Your task to perform on an android device: move a message to another label in the gmail app Image 0: 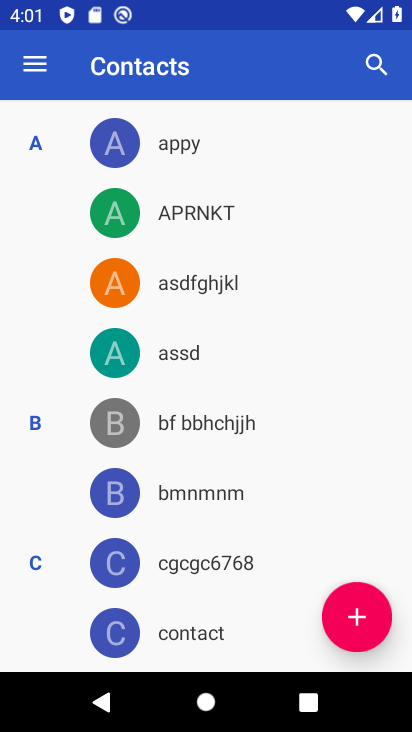
Step 0: press home button
Your task to perform on an android device: move a message to another label in the gmail app Image 1: 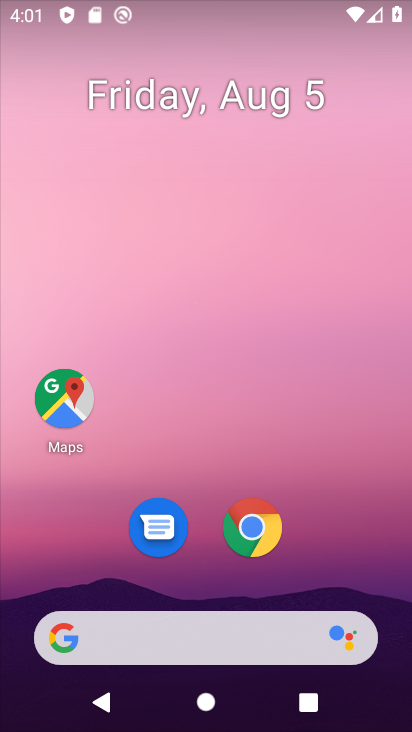
Step 1: drag from (205, 579) to (222, 35)
Your task to perform on an android device: move a message to another label in the gmail app Image 2: 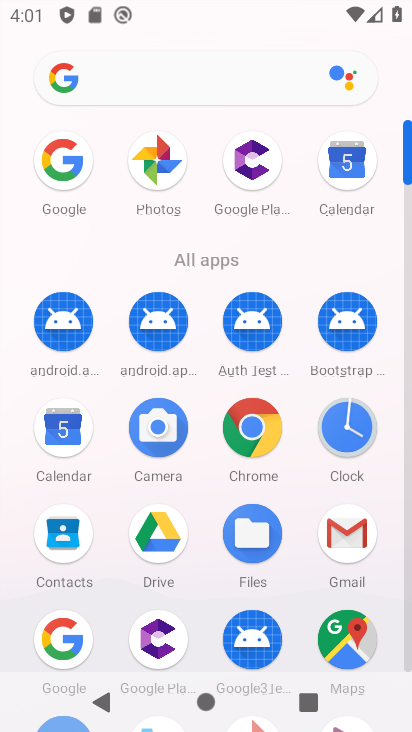
Step 2: click (342, 522)
Your task to perform on an android device: move a message to another label in the gmail app Image 3: 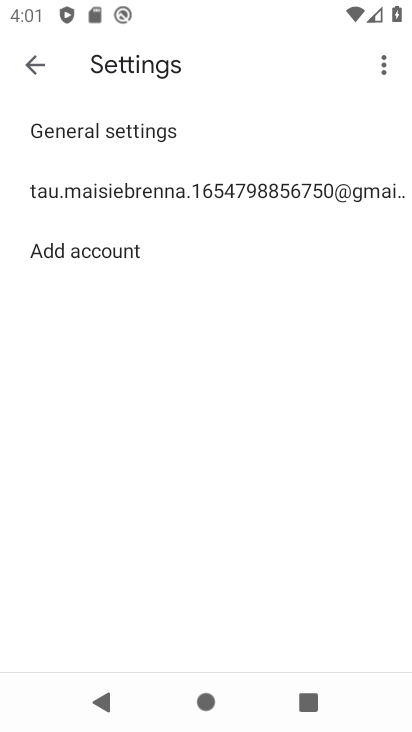
Step 3: click (28, 68)
Your task to perform on an android device: move a message to another label in the gmail app Image 4: 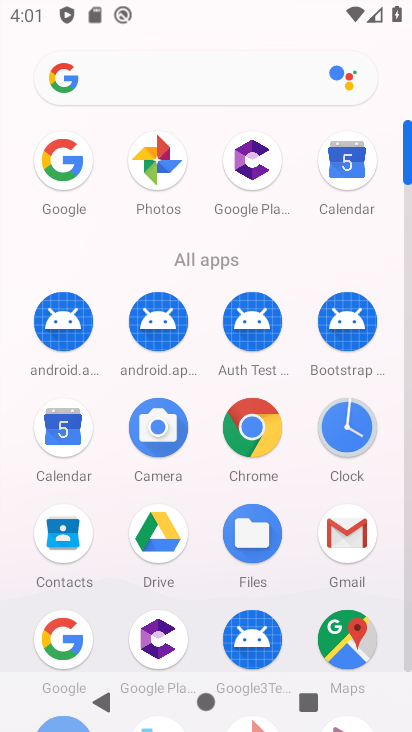
Step 4: click (343, 523)
Your task to perform on an android device: move a message to another label in the gmail app Image 5: 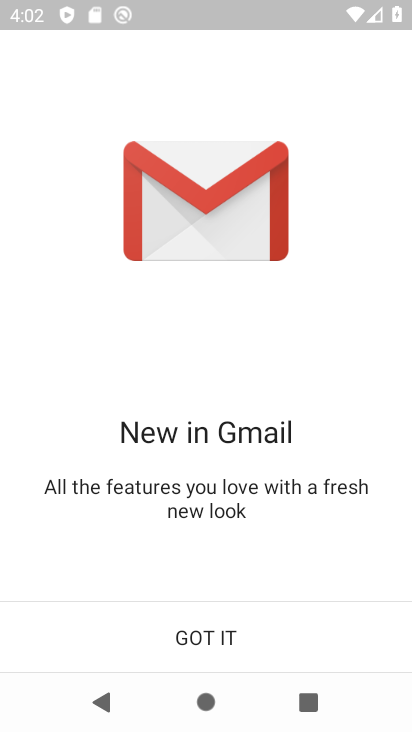
Step 5: click (216, 635)
Your task to perform on an android device: move a message to another label in the gmail app Image 6: 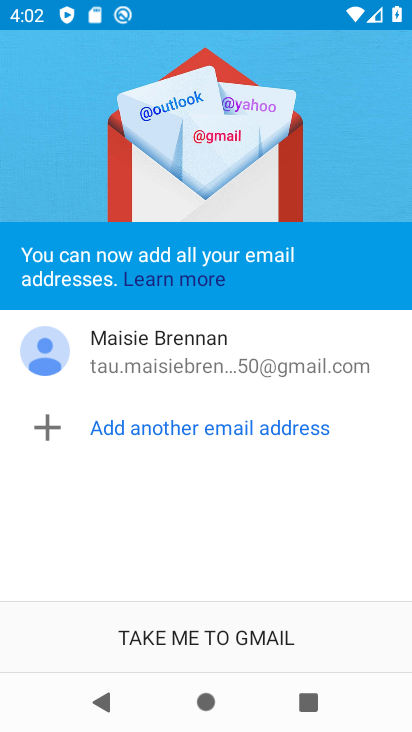
Step 6: click (199, 637)
Your task to perform on an android device: move a message to another label in the gmail app Image 7: 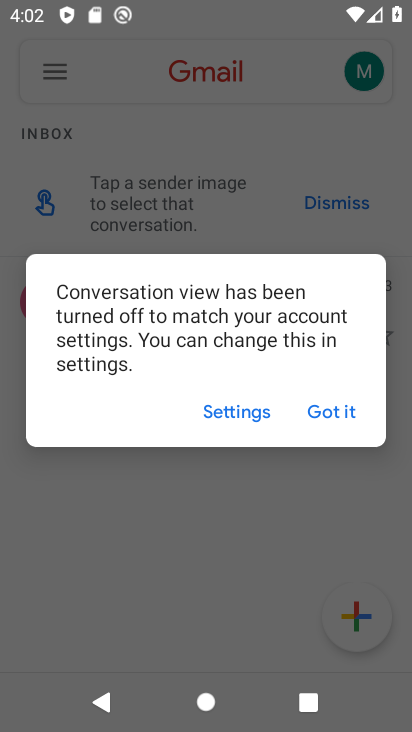
Step 7: click (329, 414)
Your task to perform on an android device: move a message to another label in the gmail app Image 8: 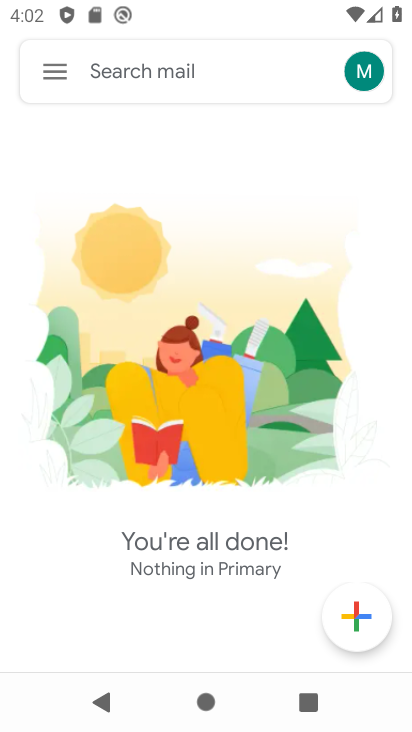
Step 8: task complete